Your task to perform on an android device: create a new album in the google photos Image 0: 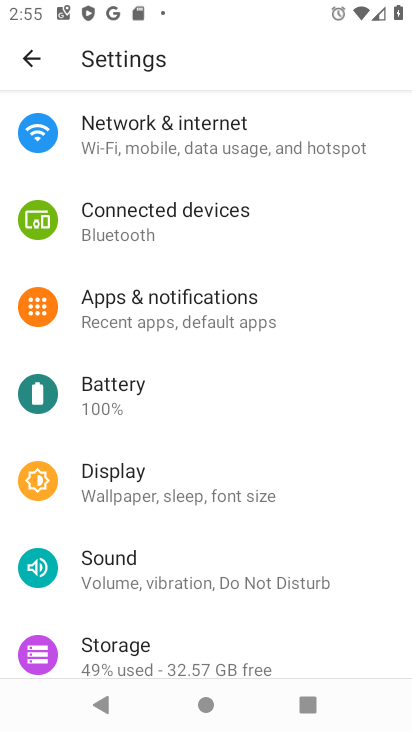
Step 0: drag from (367, 638) to (397, 417)
Your task to perform on an android device: create a new album in the google photos Image 1: 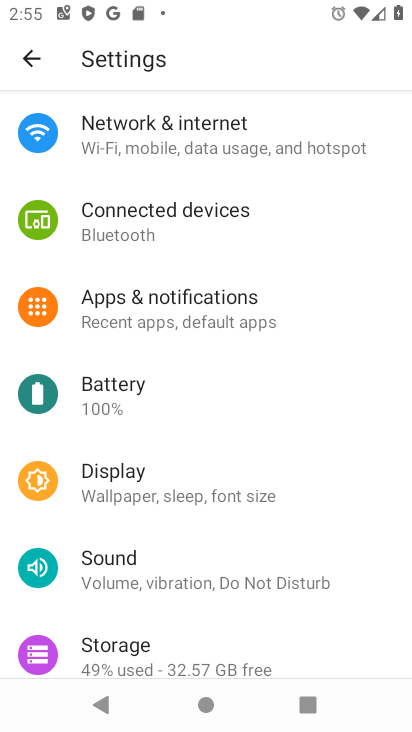
Step 1: drag from (369, 640) to (368, 467)
Your task to perform on an android device: create a new album in the google photos Image 2: 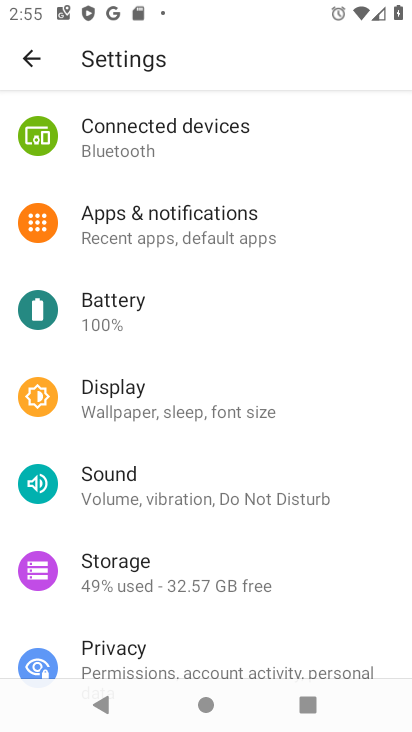
Step 2: drag from (377, 497) to (383, 417)
Your task to perform on an android device: create a new album in the google photos Image 3: 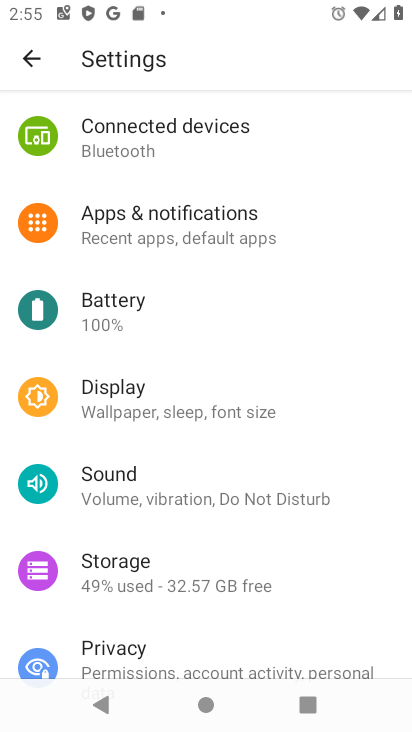
Step 3: press home button
Your task to perform on an android device: create a new album in the google photos Image 4: 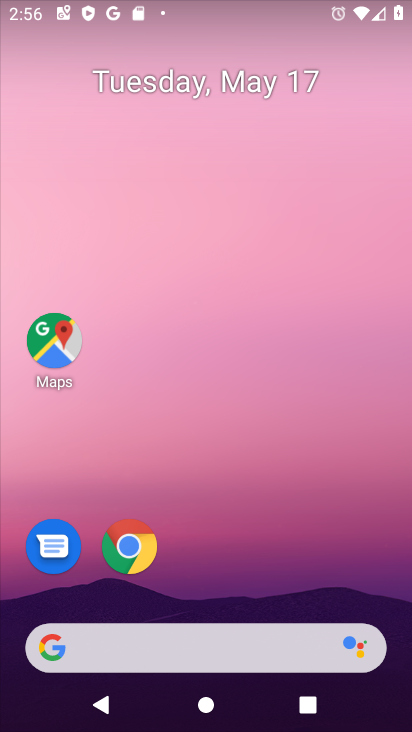
Step 4: drag from (377, 388) to (373, 322)
Your task to perform on an android device: create a new album in the google photos Image 5: 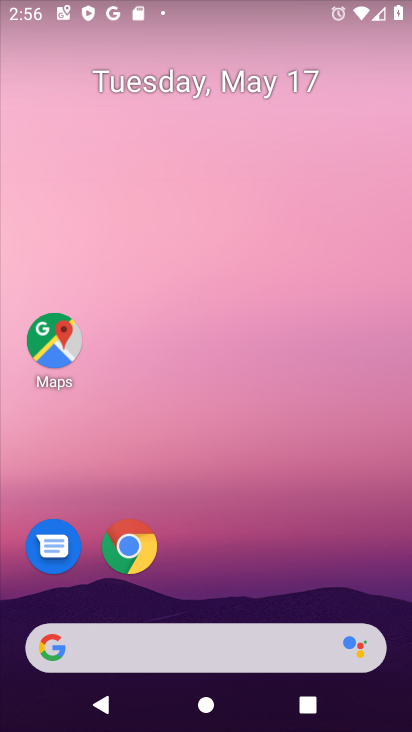
Step 5: drag from (388, 610) to (387, 411)
Your task to perform on an android device: create a new album in the google photos Image 6: 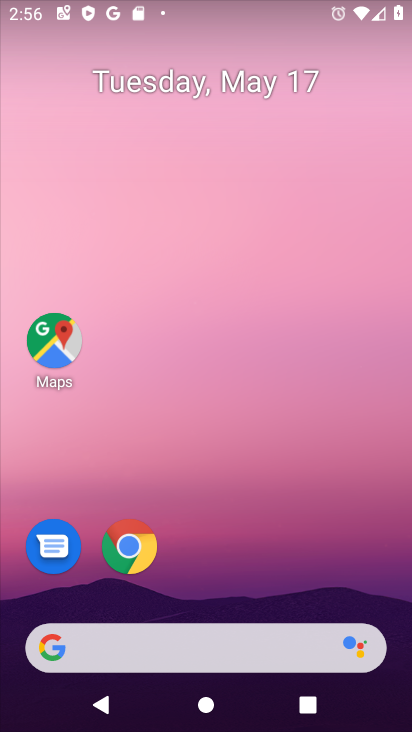
Step 6: click (380, 279)
Your task to perform on an android device: create a new album in the google photos Image 7: 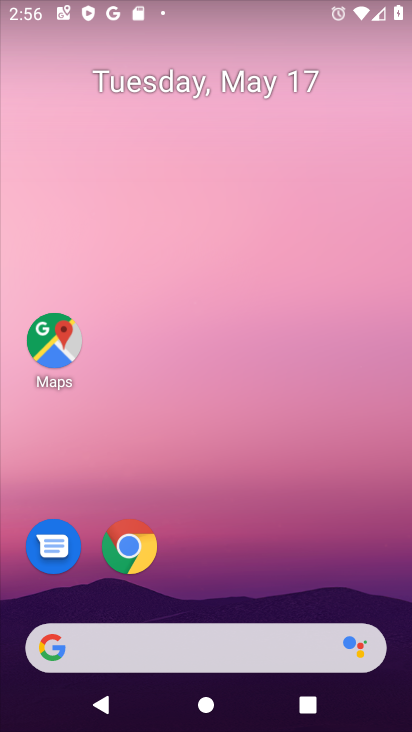
Step 7: drag from (399, 674) to (406, 111)
Your task to perform on an android device: create a new album in the google photos Image 8: 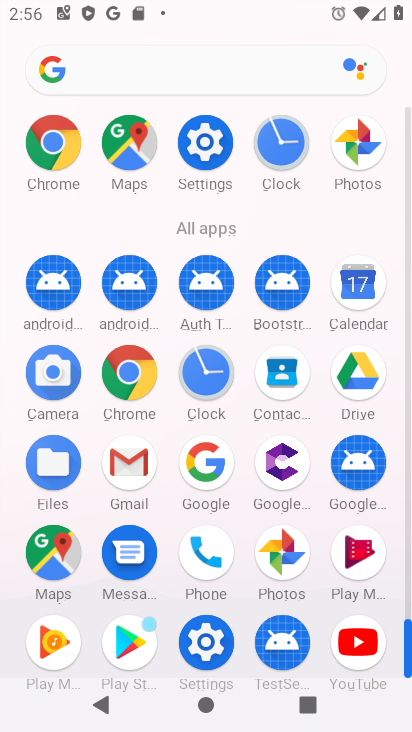
Step 8: click (278, 562)
Your task to perform on an android device: create a new album in the google photos Image 9: 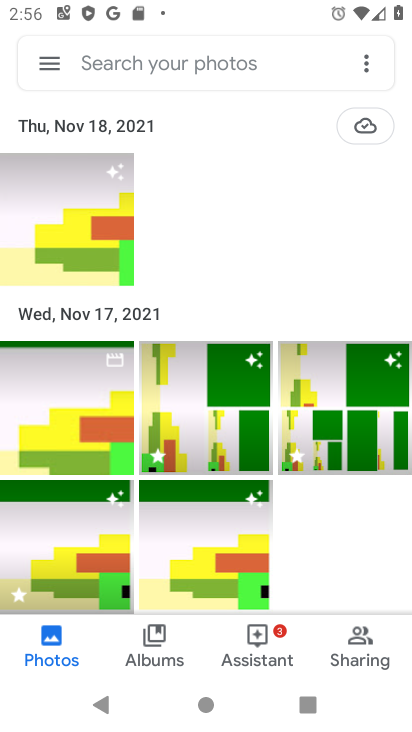
Step 9: click (362, 51)
Your task to perform on an android device: create a new album in the google photos Image 10: 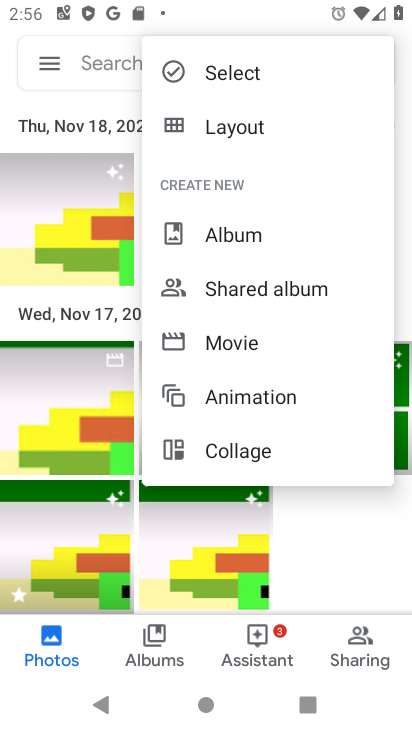
Step 10: click (233, 227)
Your task to perform on an android device: create a new album in the google photos Image 11: 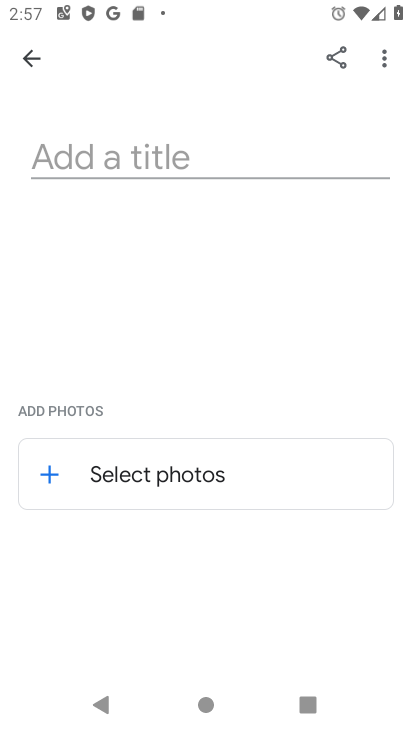
Step 11: click (182, 159)
Your task to perform on an android device: create a new album in the google photos Image 12: 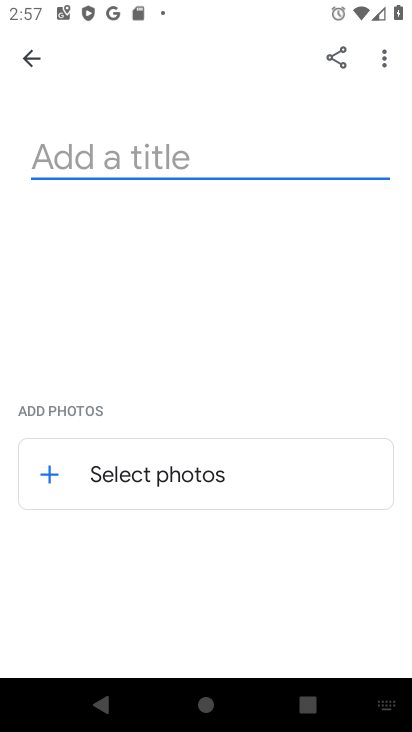
Step 12: type "hgf"
Your task to perform on an android device: create a new album in the google photos Image 13: 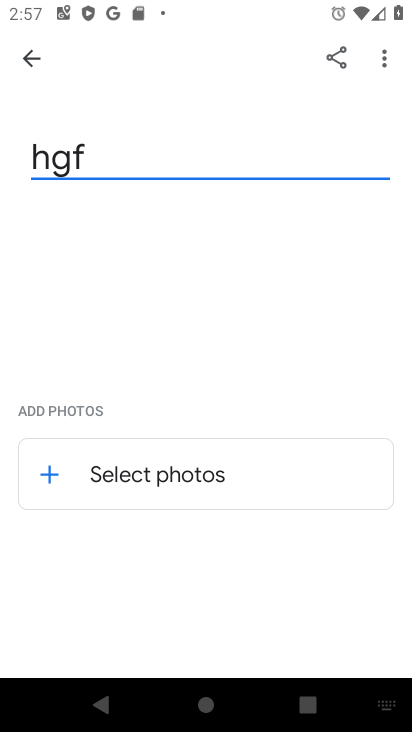
Step 13: click (85, 475)
Your task to perform on an android device: create a new album in the google photos Image 14: 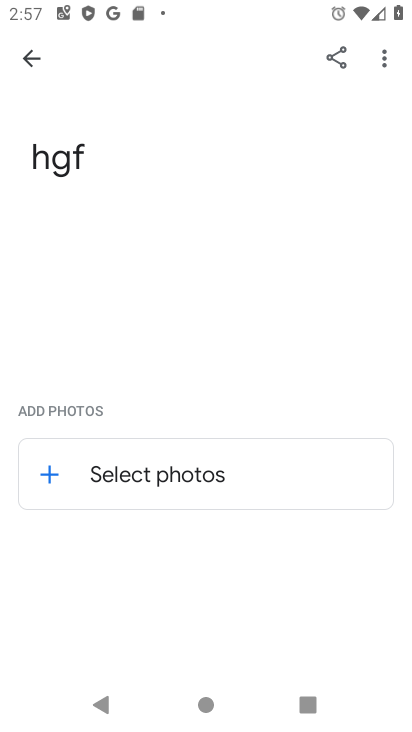
Step 14: click (38, 467)
Your task to perform on an android device: create a new album in the google photos Image 15: 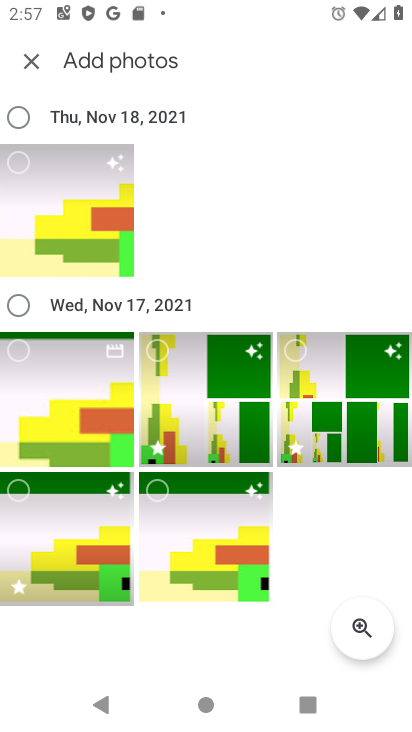
Step 15: click (16, 163)
Your task to perform on an android device: create a new album in the google photos Image 16: 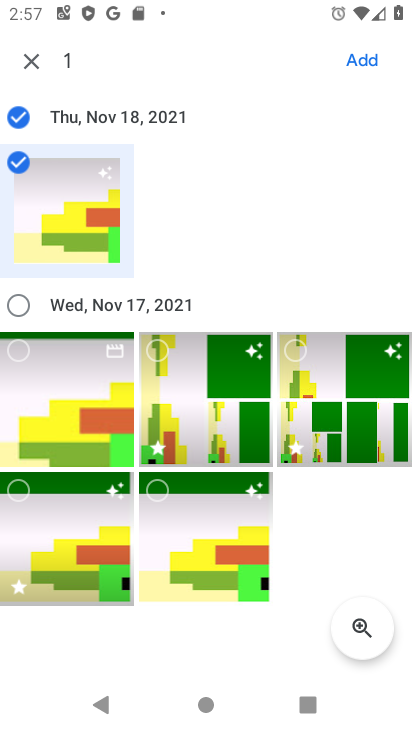
Step 16: click (18, 354)
Your task to perform on an android device: create a new album in the google photos Image 17: 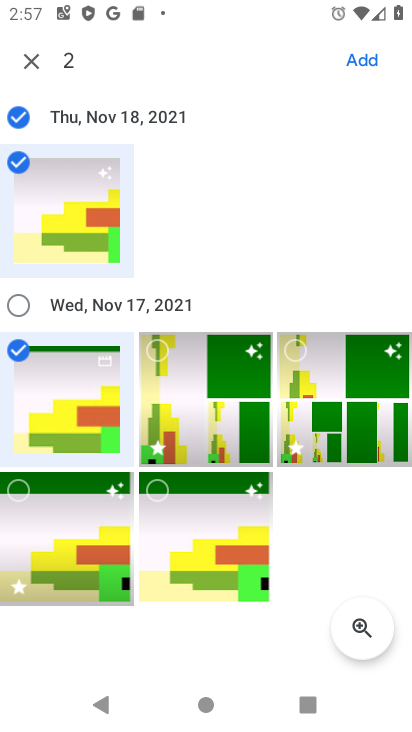
Step 17: click (158, 350)
Your task to perform on an android device: create a new album in the google photos Image 18: 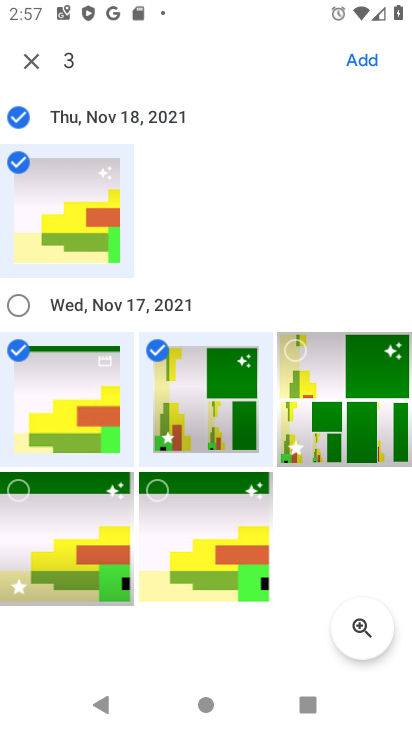
Step 18: click (360, 60)
Your task to perform on an android device: create a new album in the google photos Image 19: 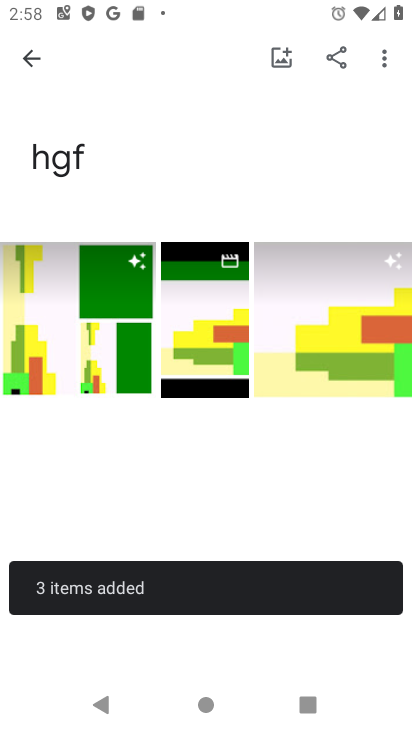
Step 19: task complete